Your task to perform on an android device: toggle sleep mode Image 0: 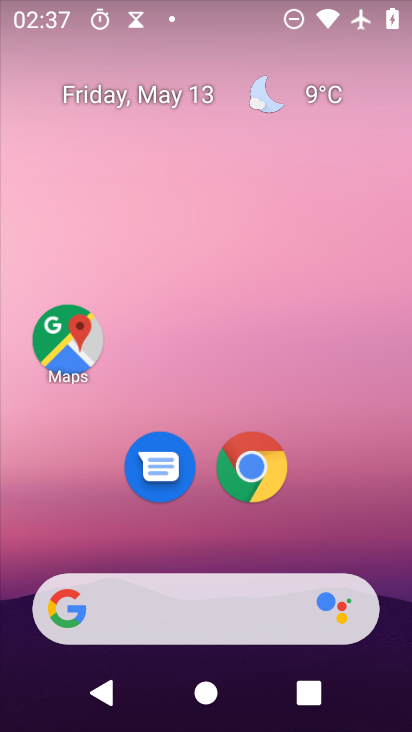
Step 0: drag from (311, 510) to (236, 83)
Your task to perform on an android device: toggle sleep mode Image 1: 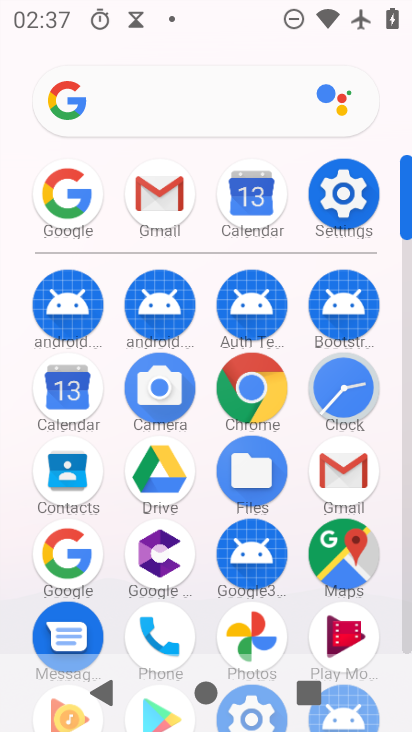
Step 1: click (346, 196)
Your task to perform on an android device: toggle sleep mode Image 2: 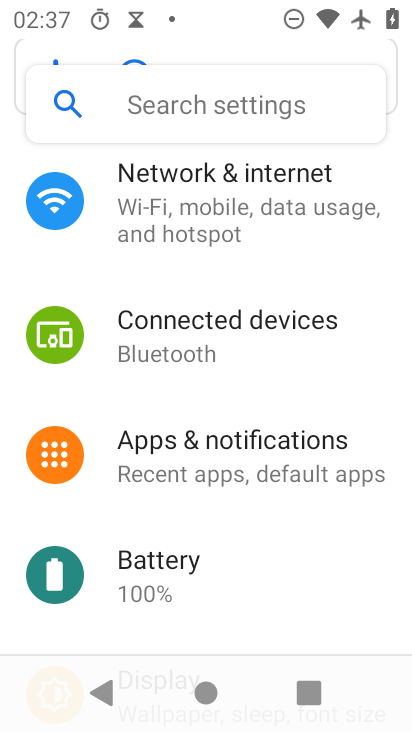
Step 2: drag from (249, 541) to (227, 229)
Your task to perform on an android device: toggle sleep mode Image 3: 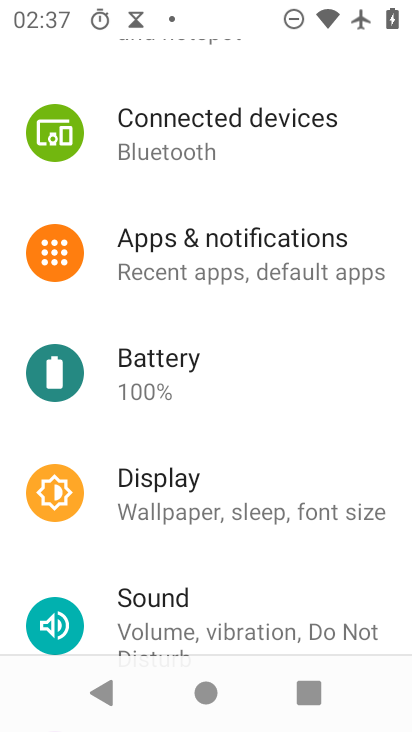
Step 3: drag from (231, 501) to (228, 228)
Your task to perform on an android device: toggle sleep mode Image 4: 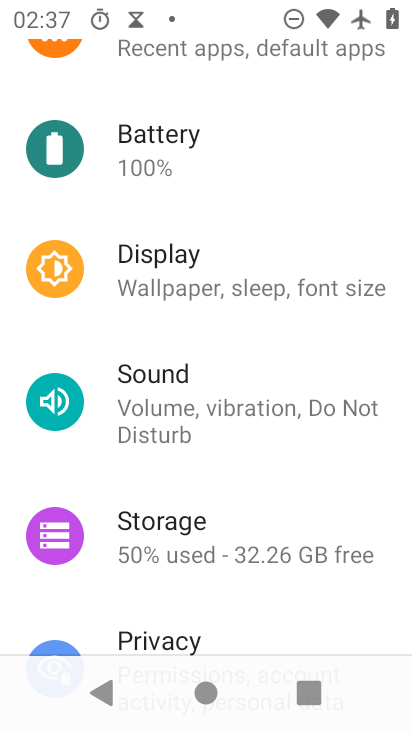
Step 4: click (221, 270)
Your task to perform on an android device: toggle sleep mode Image 5: 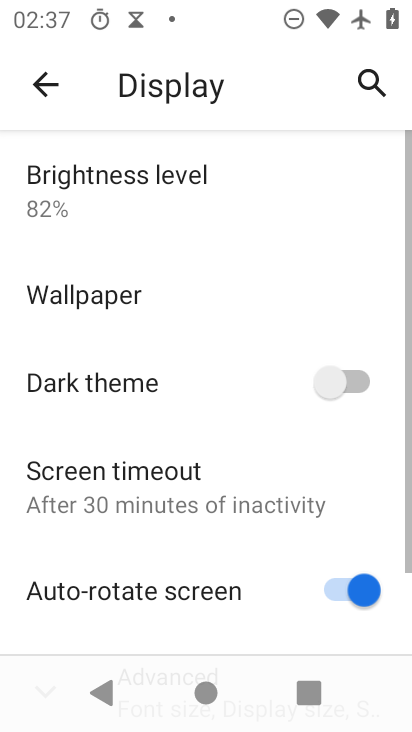
Step 5: task complete